Your task to perform on an android device: turn on location history Image 0: 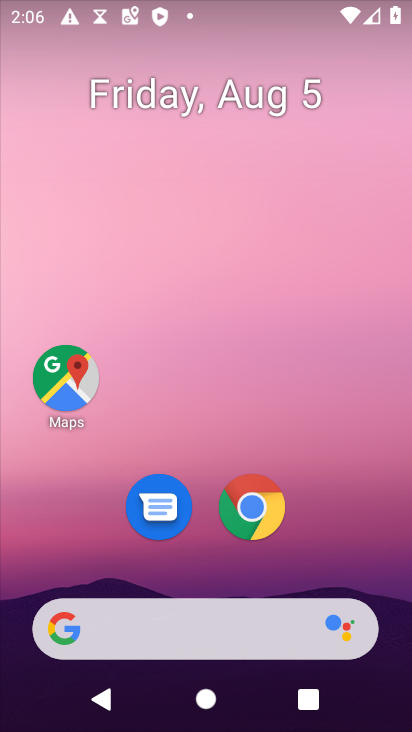
Step 0: drag from (217, 565) to (198, 3)
Your task to perform on an android device: turn on location history Image 1: 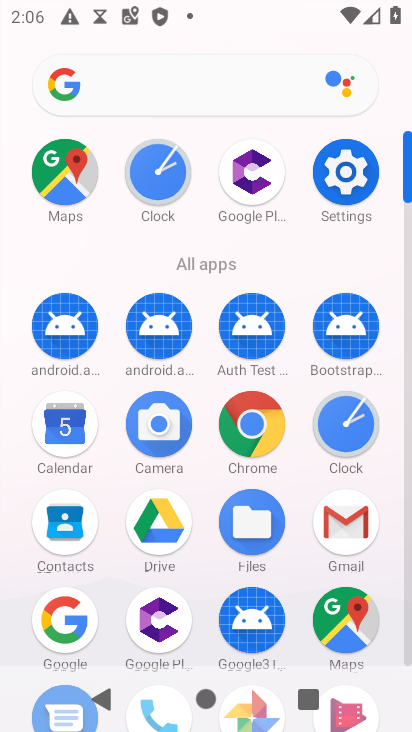
Step 1: click (343, 179)
Your task to perform on an android device: turn on location history Image 2: 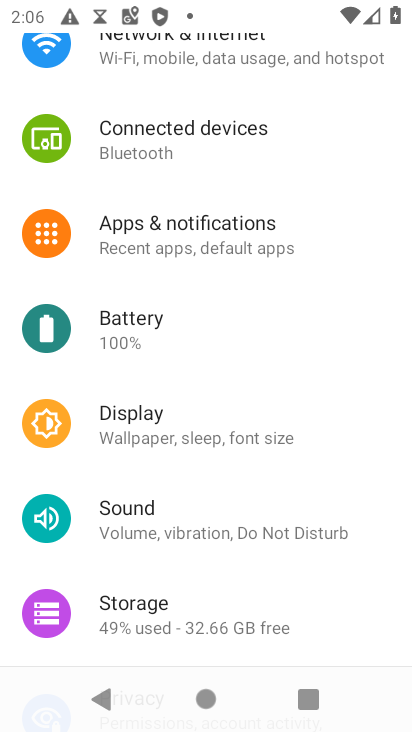
Step 2: drag from (227, 451) to (173, 121)
Your task to perform on an android device: turn on location history Image 3: 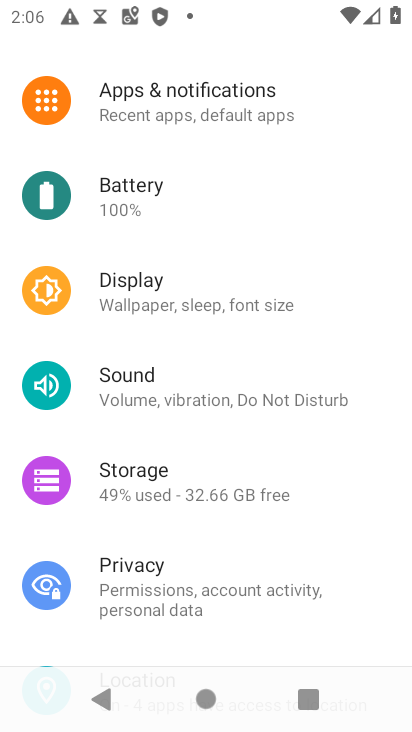
Step 3: drag from (165, 559) to (128, 290)
Your task to perform on an android device: turn on location history Image 4: 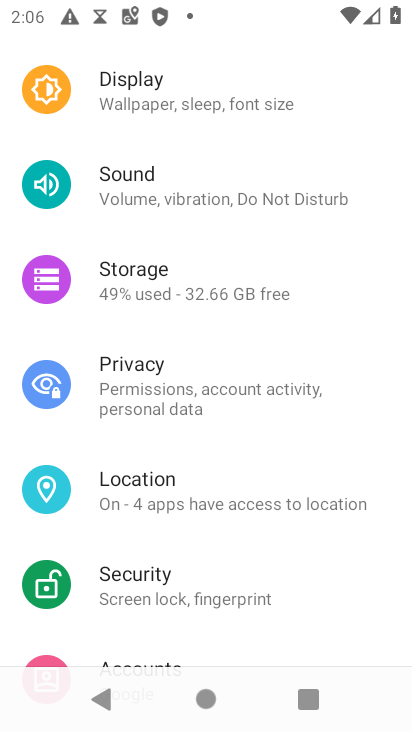
Step 4: click (149, 504)
Your task to perform on an android device: turn on location history Image 5: 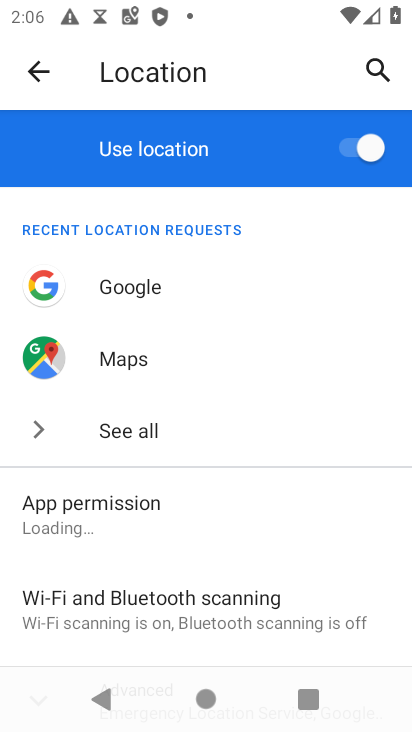
Step 5: drag from (243, 564) to (228, 233)
Your task to perform on an android device: turn on location history Image 6: 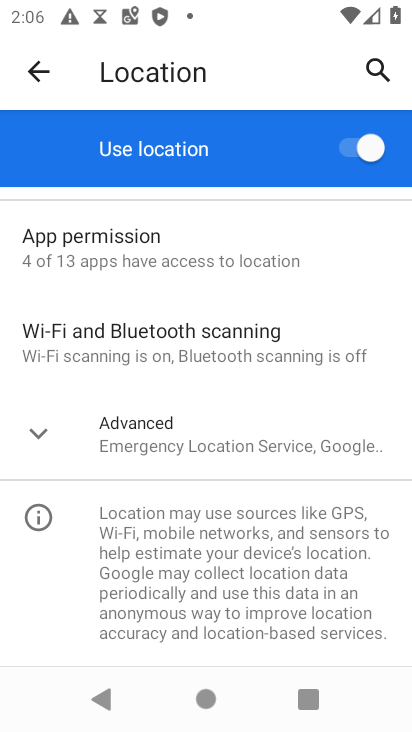
Step 6: click (225, 432)
Your task to perform on an android device: turn on location history Image 7: 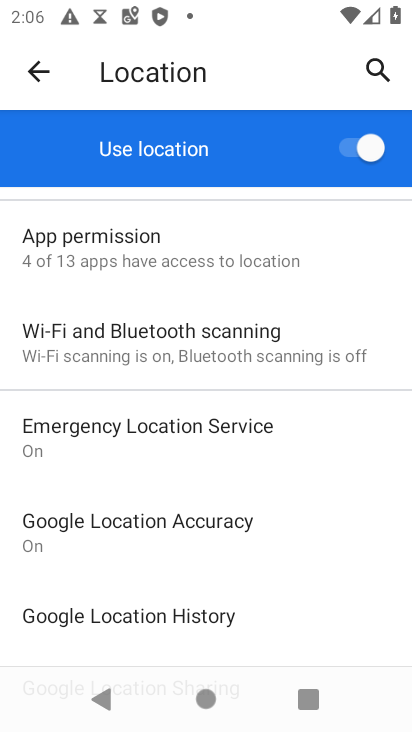
Step 7: click (210, 621)
Your task to perform on an android device: turn on location history Image 8: 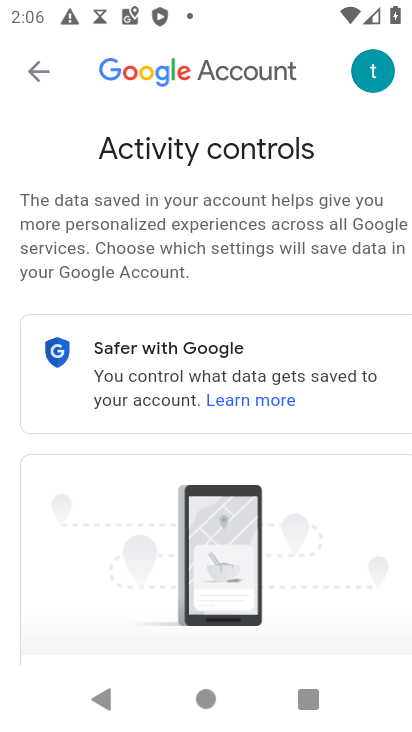
Step 8: drag from (293, 523) to (249, 135)
Your task to perform on an android device: turn on location history Image 9: 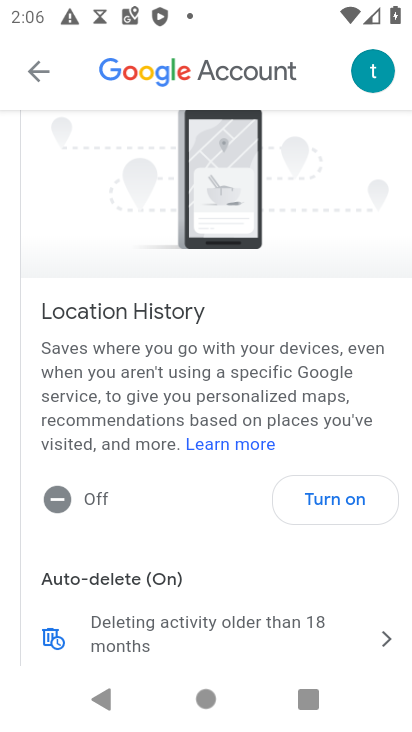
Step 9: click (339, 500)
Your task to perform on an android device: turn on location history Image 10: 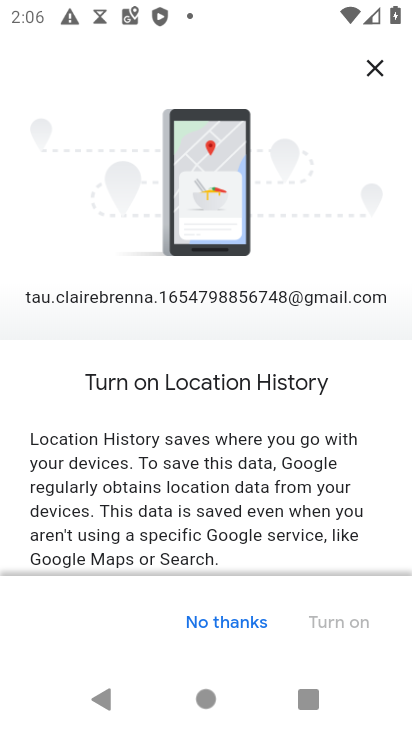
Step 10: drag from (303, 560) to (214, 141)
Your task to perform on an android device: turn on location history Image 11: 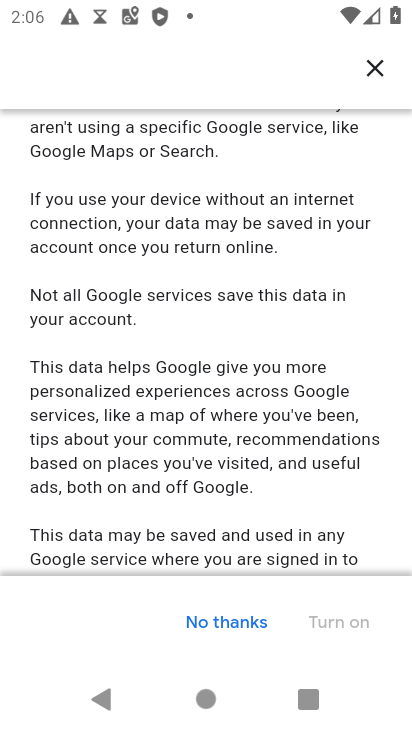
Step 11: drag from (298, 520) to (240, 199)
Your task to perform on an android device: turn on location history Image 12: 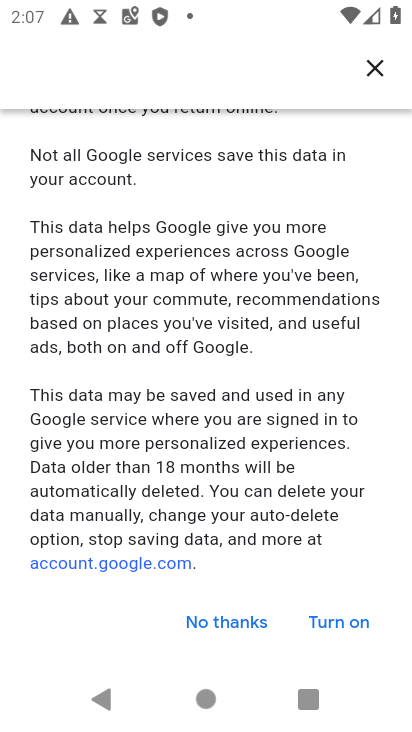
Step 12: click (345, 625)
Your task to perform on an android device: turn on location history Image 13: 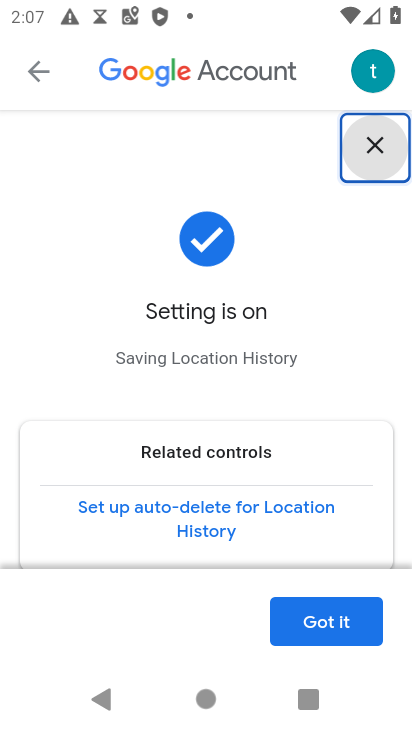
Step 13: click (333, 621)
Your task to perform on an android device: turn on location history Image 14: 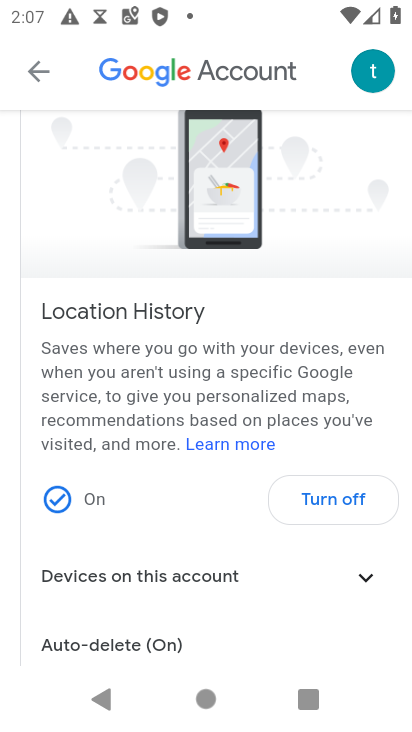
Step 14: task complete